Your task to perform on an android device: turn on the 24-hour format for clock Image 0: 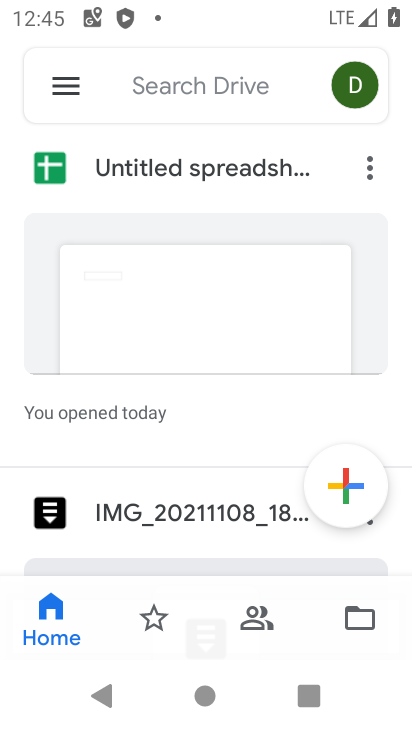
Step 0: press home button
Your task to perform on an android device: turn on the 24-hour format for clock Image 1: 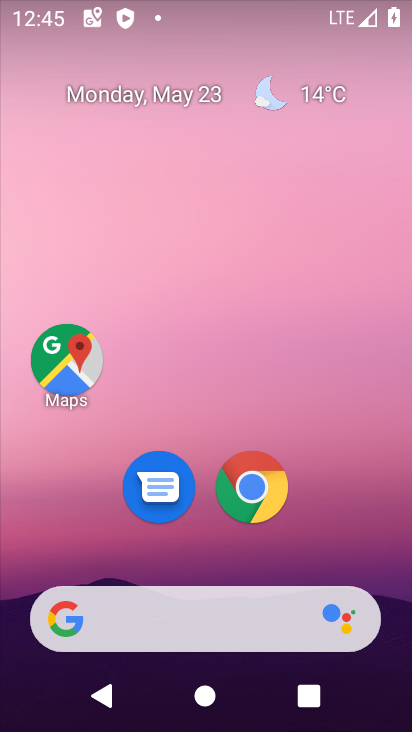
Step 1: drag from (399, 605) to (369, 88)
Your task to perform on an android device: turn on the 24-hour format for clock Image 2: 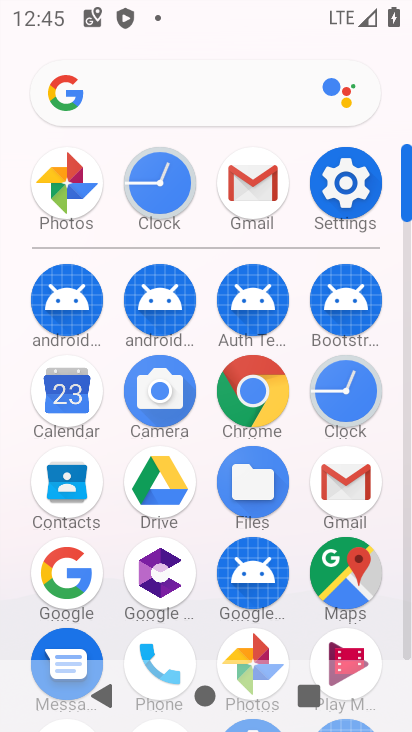
Step 2: click (410, 636)
Your task to perform on an android device: turn on the 24-hour format for clock Image 3: 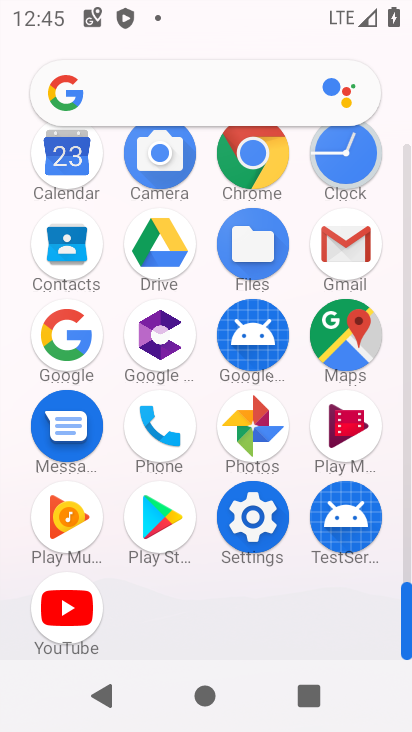
Step 3: click (338, 144)
Your task to perform on an android device: turn on the 24-hour format for clock Image 4: 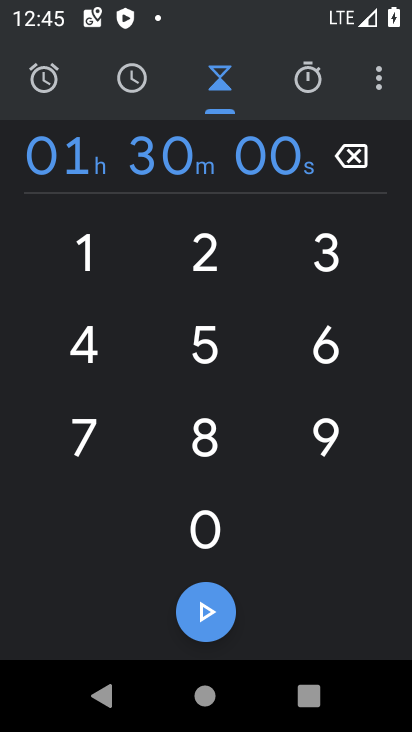
Step 4: click (378, 85)
Your task to perform on an android device: turn on the 24-hour format for clock Image 5: 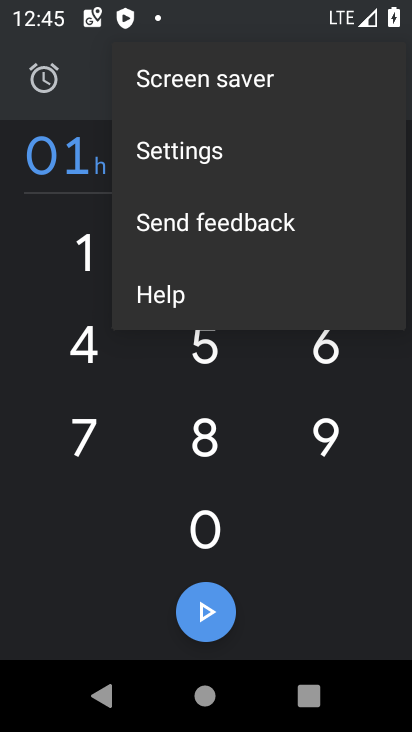
Step 5: click (187, 144)
Your task to perform on an android device: turn on the 24-hour format for clock Image 6: 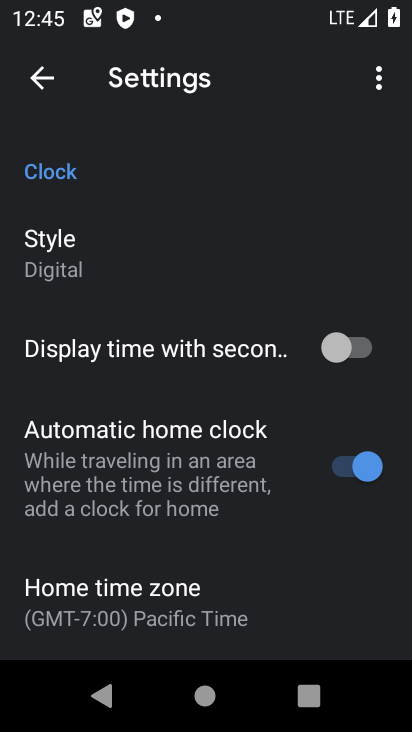
Step 6: drag from (287, 526) to (277, 57)
Your task to perform on an android device: turn on the 24-hour format for clock Image 7: 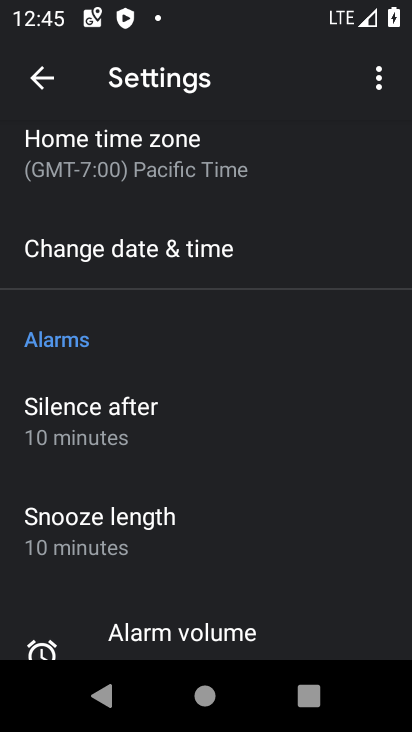
Step 7: click (119, 254)
Your task to perform on an android device: turn on the 24-hour format for clock Image 8: 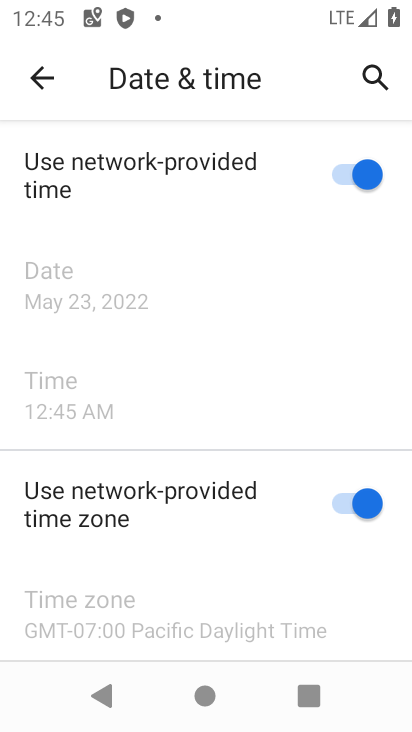
Step 8: drag from (223, 577) to (273, 121)
Your task to perform on an android device: turn on the 24-hour format for clock Image 9: 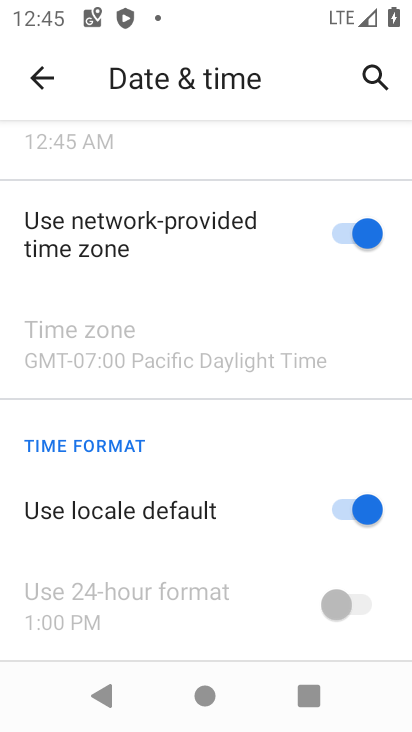
Step 9: click (344, 503)
Your task to perform on an android device: turn on the 24-hour format for clock Image 10: 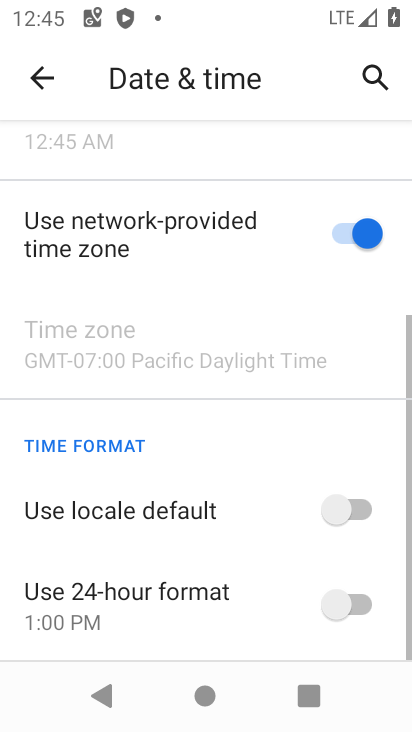
Step 10: click (361, 601)
Your task to perform on an android device: turn on the 24-hour format for clock Image 11: 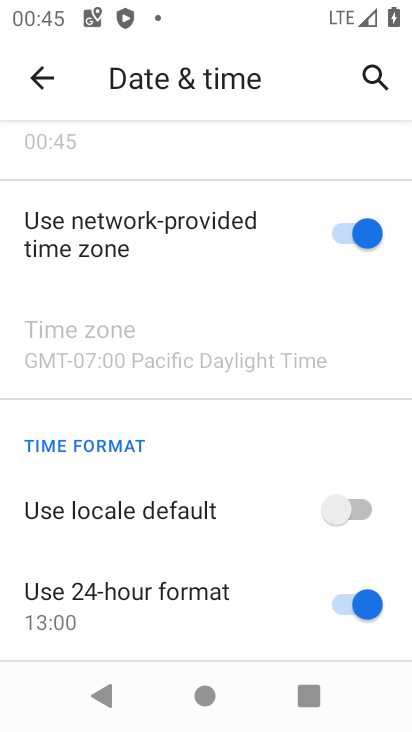
Step 11: task complete